Your task to perform on an android device: turn on translation in the chrome app Image 0: 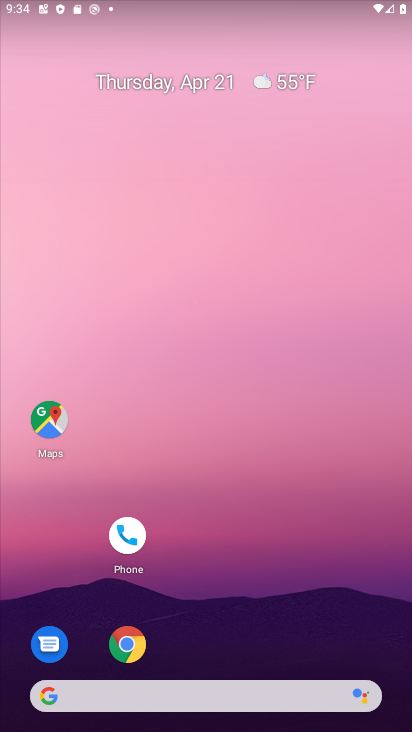
Step 0: drag from (307, 632) to (256, 138)
Your task to perform on an android device: turn on translation in the chrome app Image 1: 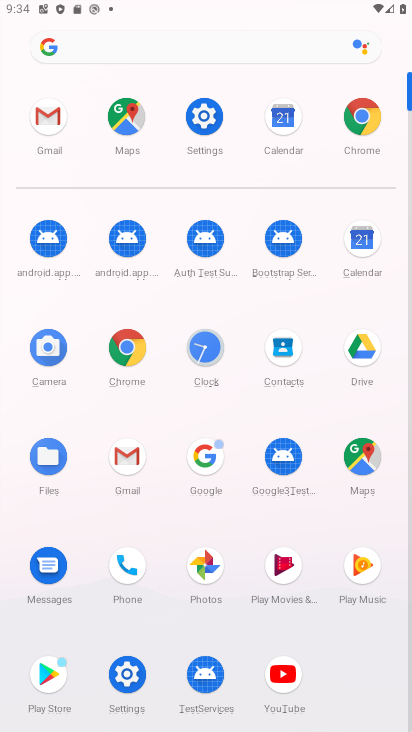
Step 1: click (133, 354)
Your task to perform on an android device: turn on translation in the chrome app Image 2: 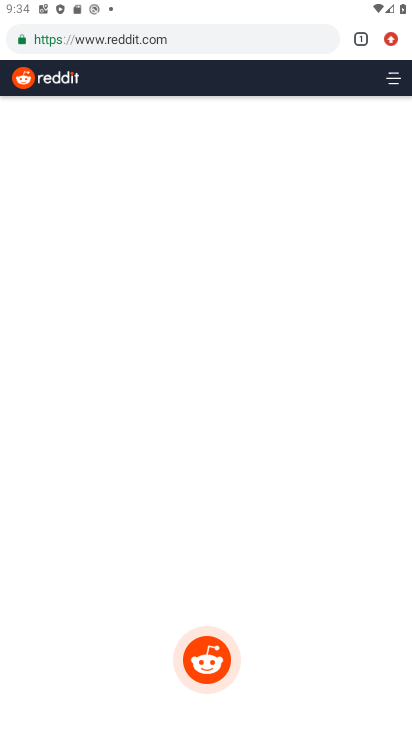
Step 2: drag from (404, 35) to (270, 519)
Your task to perform on an android device: turn on translation in the chrome app Image 3: 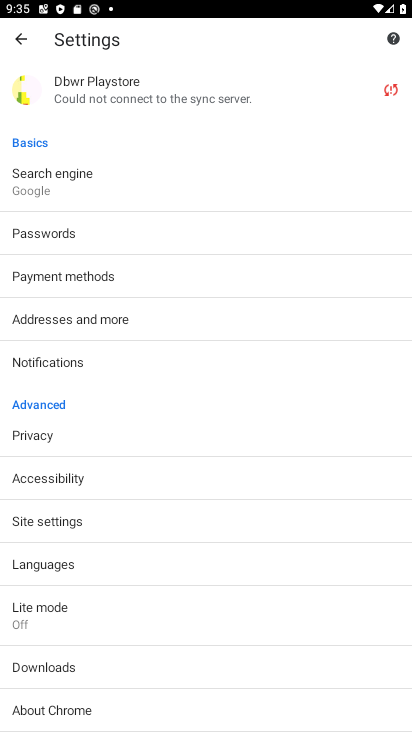
Step 3: drag from (95, 630) to (180, 208)
Your task to perform on an android device: turn on translation in the chrome app Image 4: 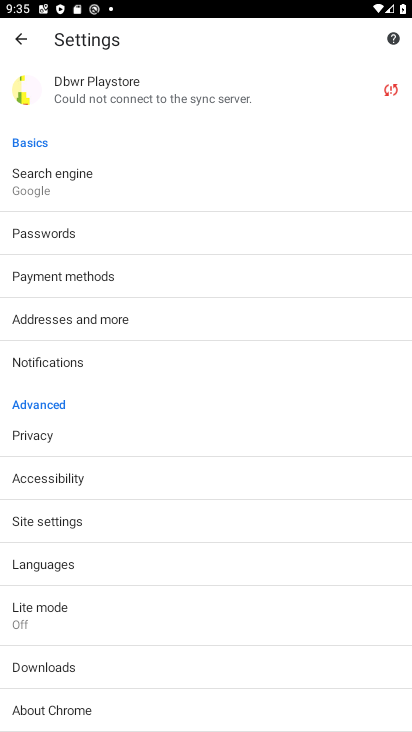
Step 4: click (85, 569)
Your task to perform on an android device: turn on translation in the chrome app Image 5: 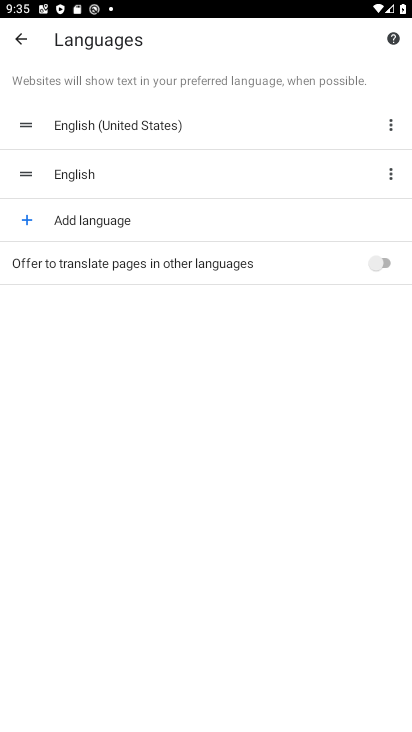
Step 5: click (274, 263)
Your task to perform on an android device: turn on translation in the chrome app Image 6: 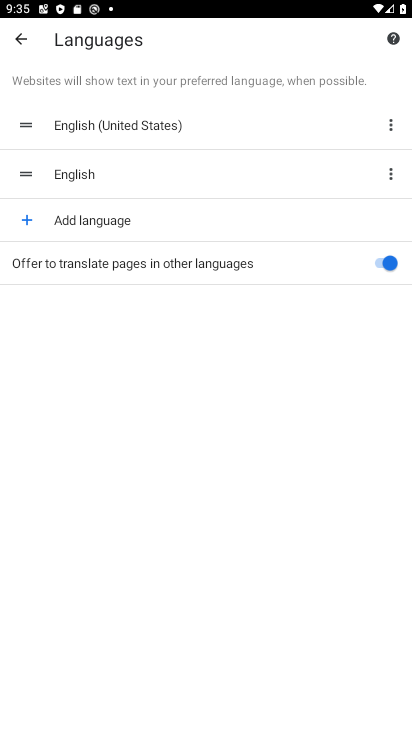
Step 6: task complete